Your task to perform on an android device: Search for vegetarian restaurants on Maps Image 0: 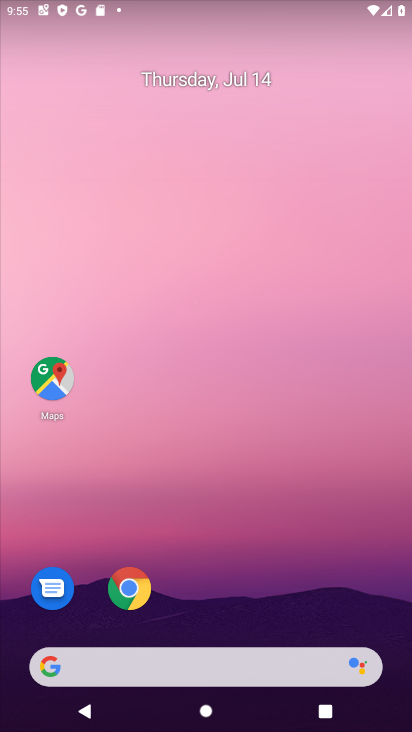
Step 0: click (54, 374)
Your task to perform on an android device: Search for vegetarian restaurants on Maps Image 1: 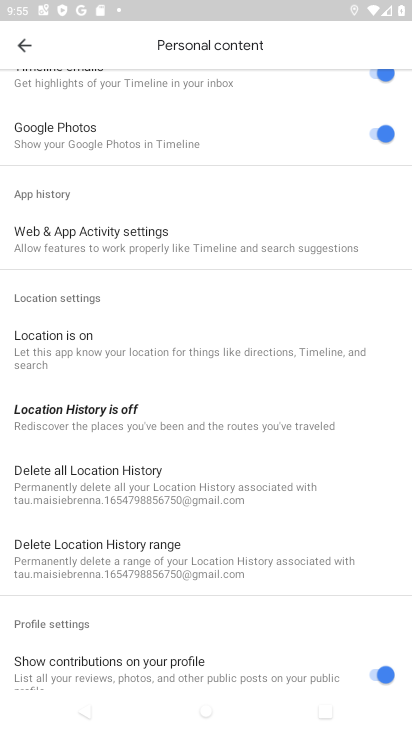
Step 1: click (18, 39)
Your task to perform on an android device: Search for vegetarian restaurants on Maps Image 2: 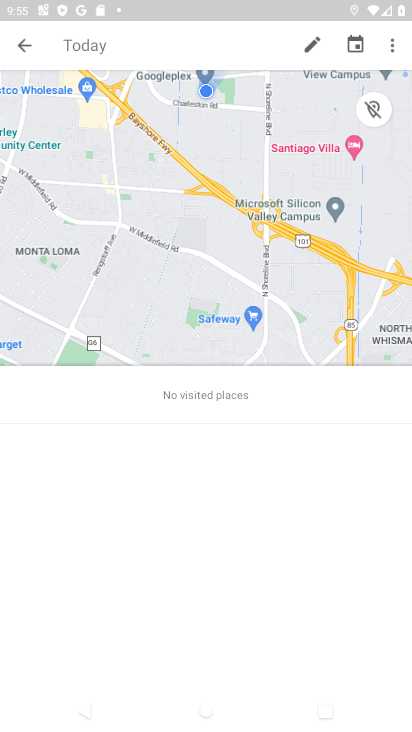
Step 2: click (27, 49)
Your task to perform on an android device: Search for vegetarian restaurants on Maps Image 3: 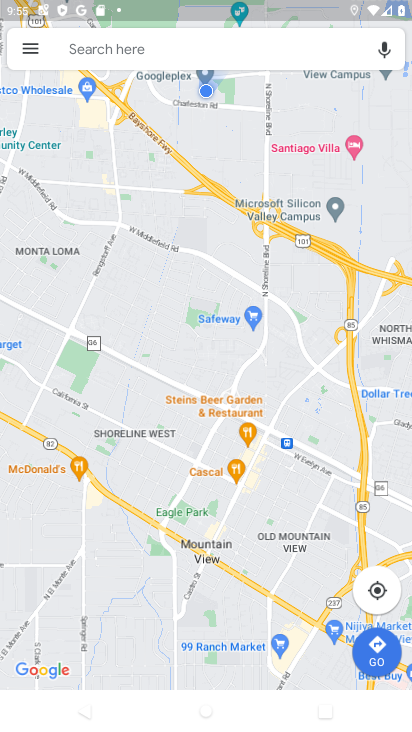
Step 3: click (158, 46)
Your task to perform on an android device: Search for vegetarian restaurants on Maps Image 4: 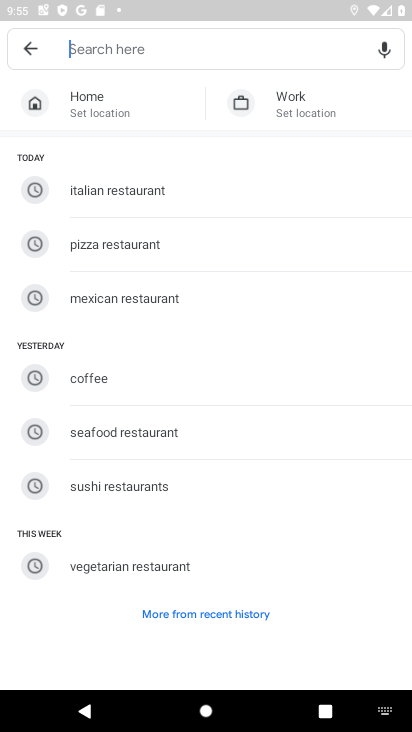
Step 4: click (148, 564)
Your task to perform on an android device: Search for vegetarian restaurants on Maps Image 5: 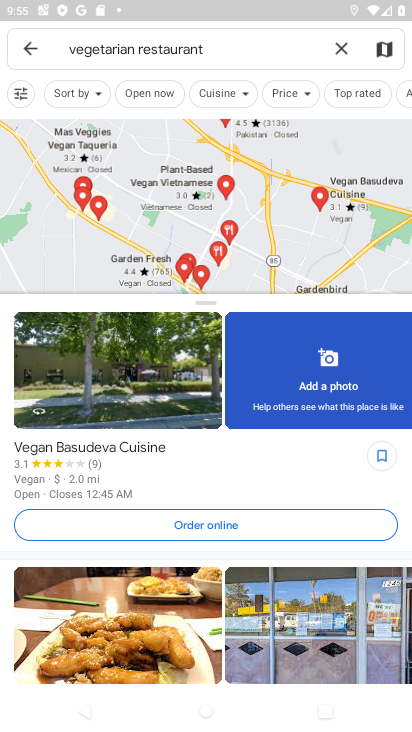
Step 5: task complete